Your task to perform on an android device: toggle javascript in the chrome app Image 0: 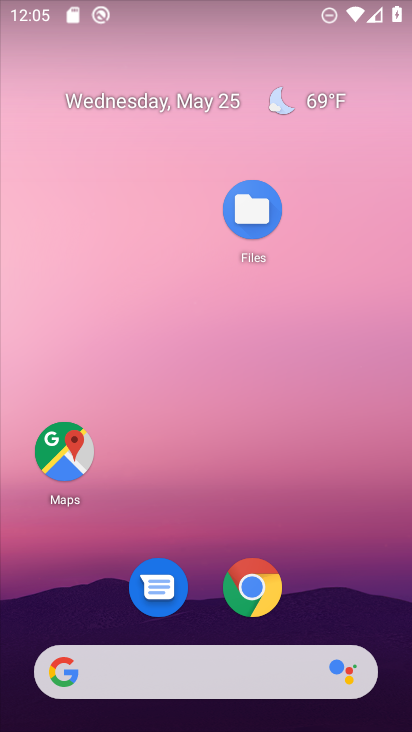
Step 0: click (258, 591)
Your task to perform on an android device: toggle javascript in the chrome app Image 1: 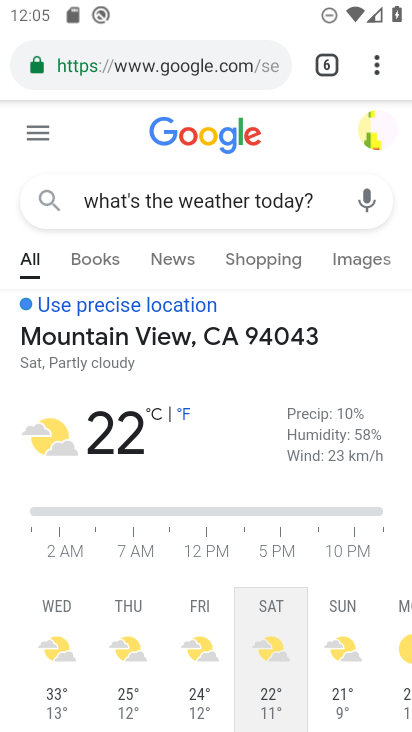
Step 1: click (375, 65)
Your task to perform on an android device: toggle javascript in the chrome app Image 2: 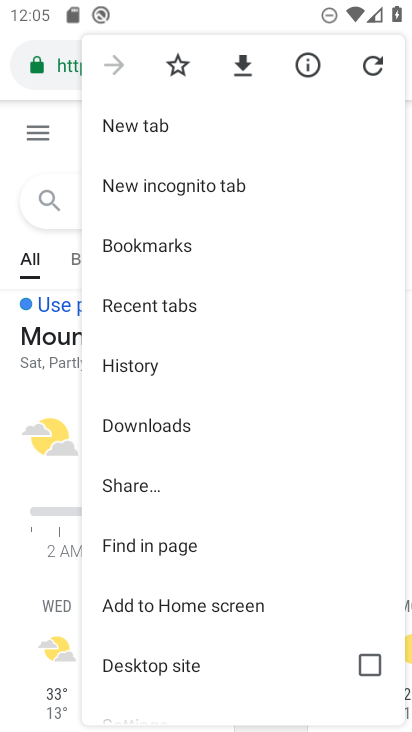
Step 2: drag from (255, 670) to (273, 334)
Your task to perform on an android device: toggle javascript in the chrome app Image 3: 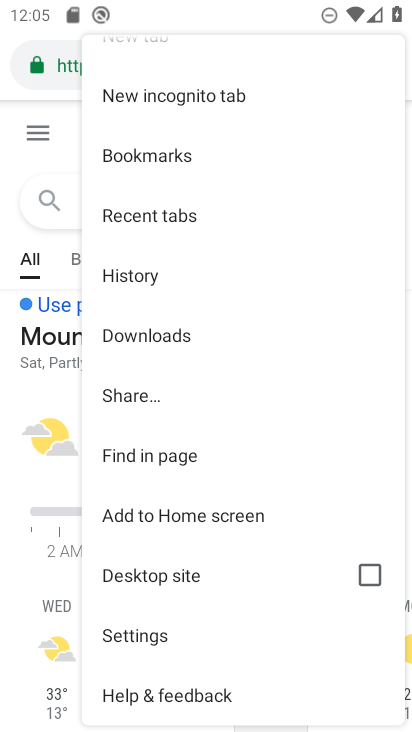
Step 3: click (153, 640)
Your task to perform on an android device: toggle javascript in the chrome app Image 4: 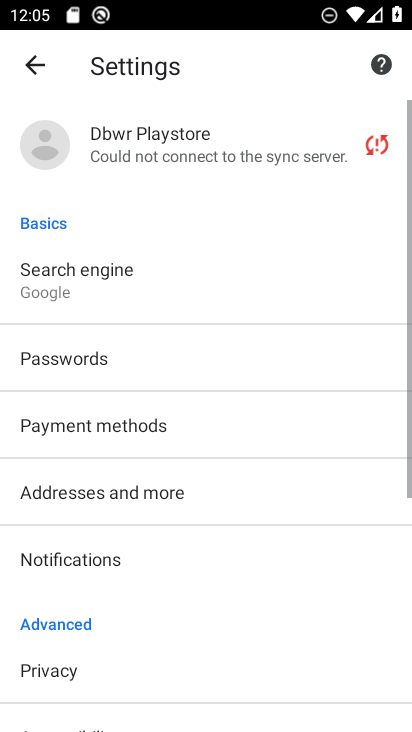
Step 4: drag from (153, 640) to (303, 296)
Your task to perform on an android device: toggle javascript in the chrome app Image 5: 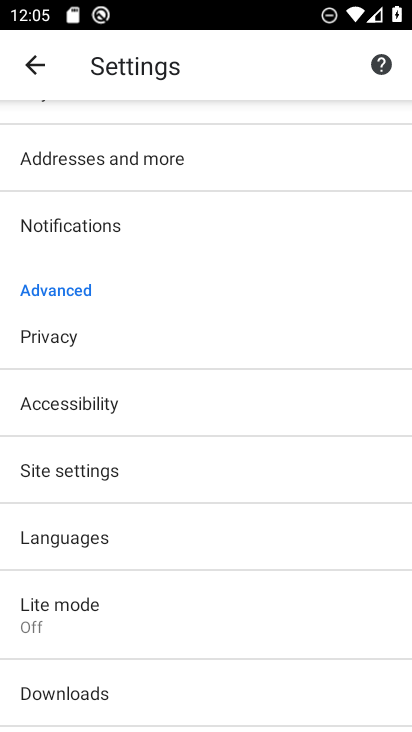
Step 5: click (70, 475)
Your task to perform on an android device: toggle javascript in the chrome app Image 6: 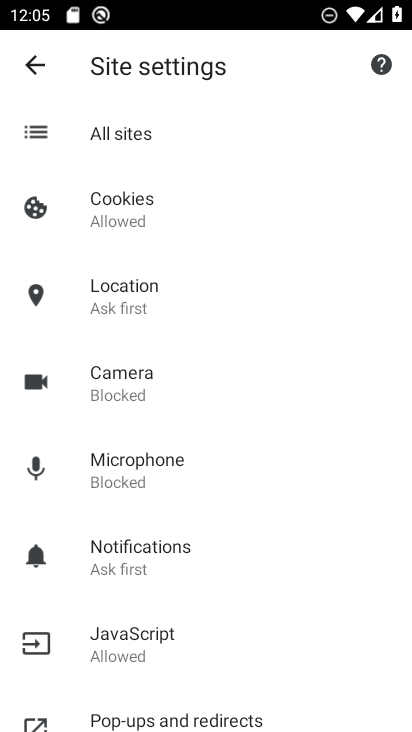
Step 6: click (121, 652)
Your task to perform on an android device: toggle javascript in the chrome app Image 7: 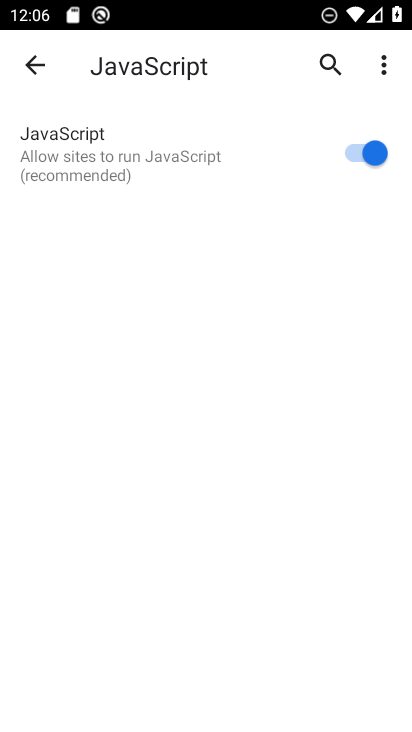
Step 7: click (370, 158)
Your task to perform on an android device: toggle javascript in the chrome app Image 8: 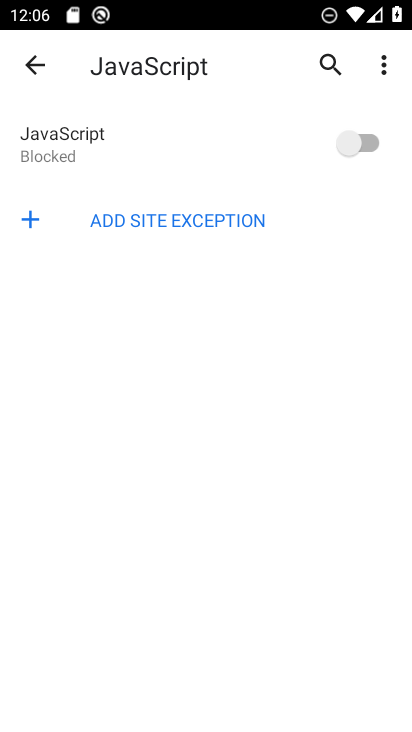
Step 8: task complete